Your task to perform on an android device: Go to Google maps Image 0: 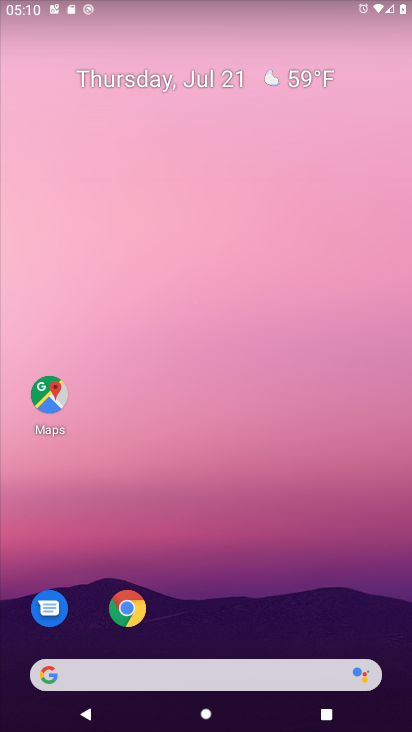
Step 0: drag from (186, 680) to (311, 48)
Your task to perform on an android device: Go to Google maps Image 1: 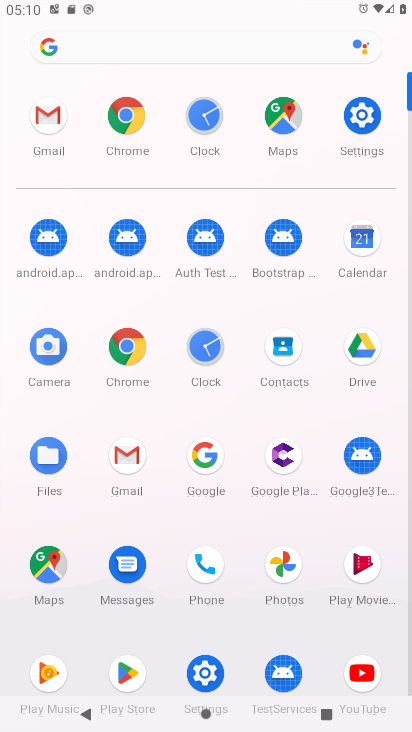
Step 1: click (47, 558)
Your task to perform on an android device: Go to Google maps Image 2: 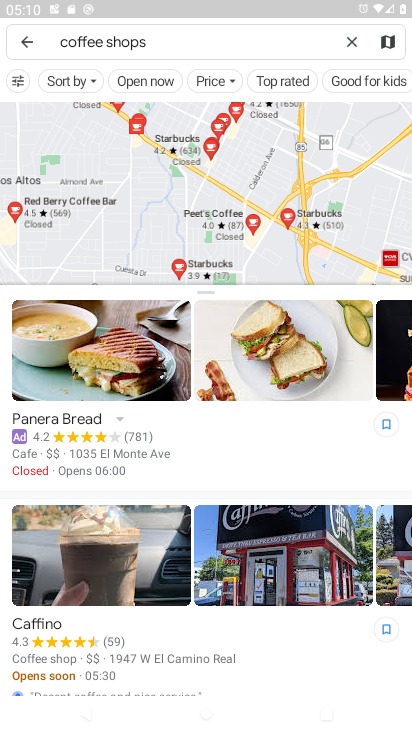
Step 2: task complete